Your task to perform on an android device: Open Reddit.com Image 0: 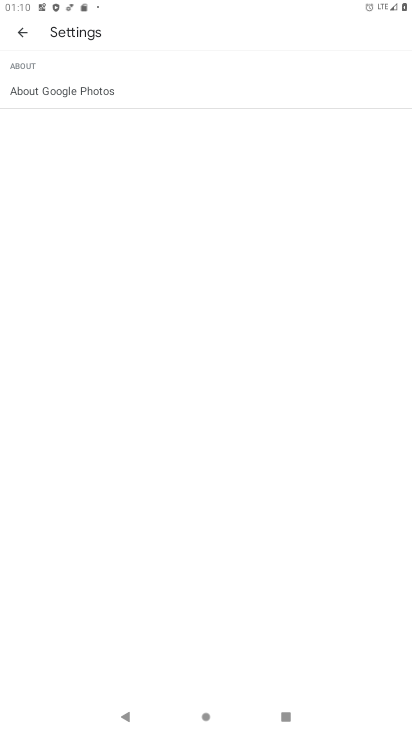
Step 0: press home button
Your task to perform on an android device: Open Reddit.com Image 1: 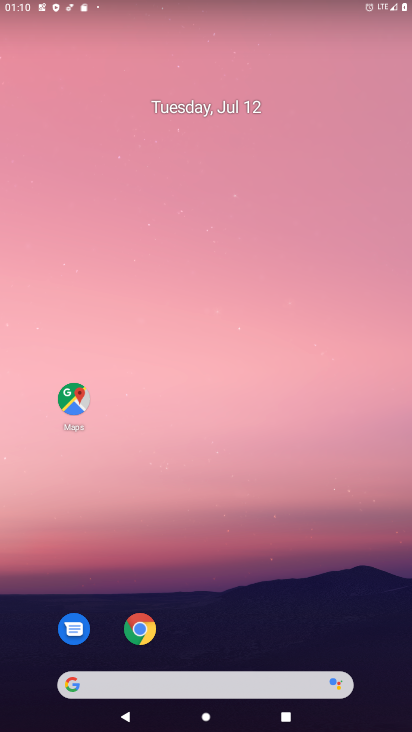
Step 1: click (158, 687)
Your task to perform on an android device: Open Reddit.com Image 2: 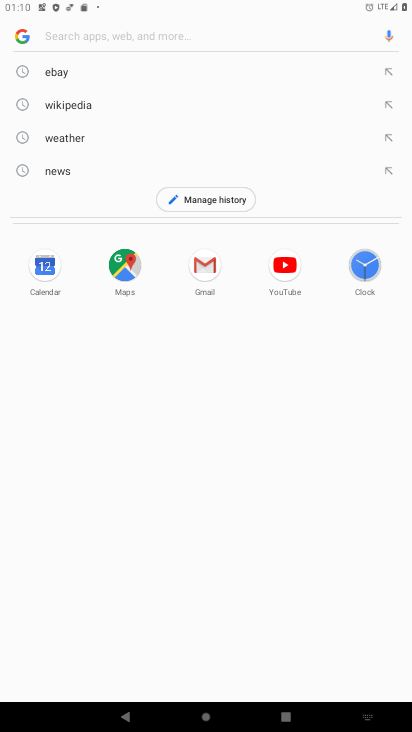
Step 2: click (92, 35)
Your task to perform on an android device: Open Reddit.com Image 3: 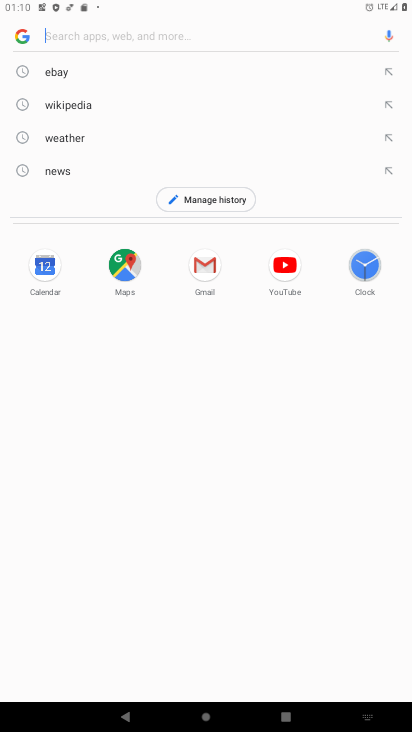
Step 3: type "Reddit.com"
Your task to perform on an android device: Open Reddit.com Image 4: 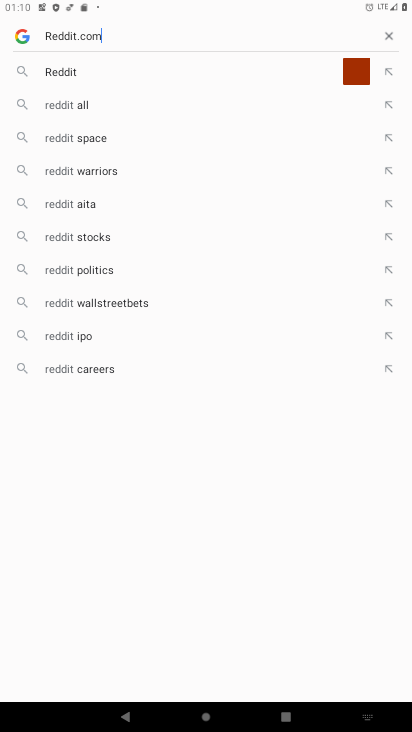
Step 4: type ""
Your task to perform on an android device: Open Reddit.com Image 5: 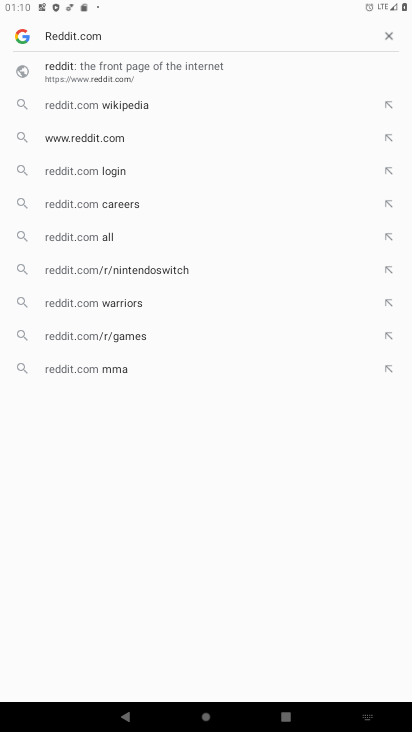
Step 5: click (191, 139)
Your task to perform on an android device: Open Reddit.com Image 6: 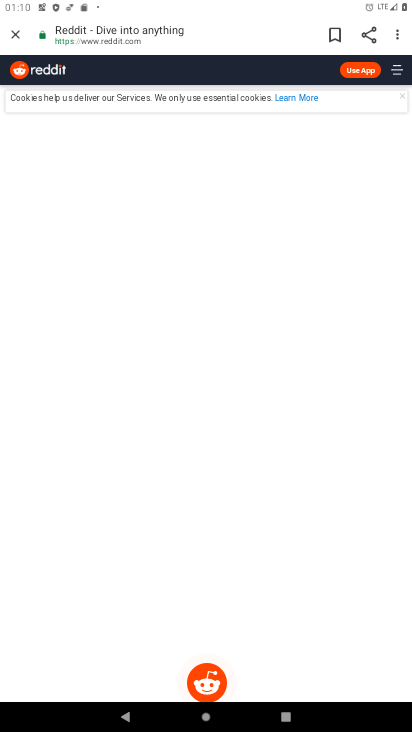
Step 6: task complete